Your task to perform on an android device: open app "Duolingo: language lessons" Image 0: 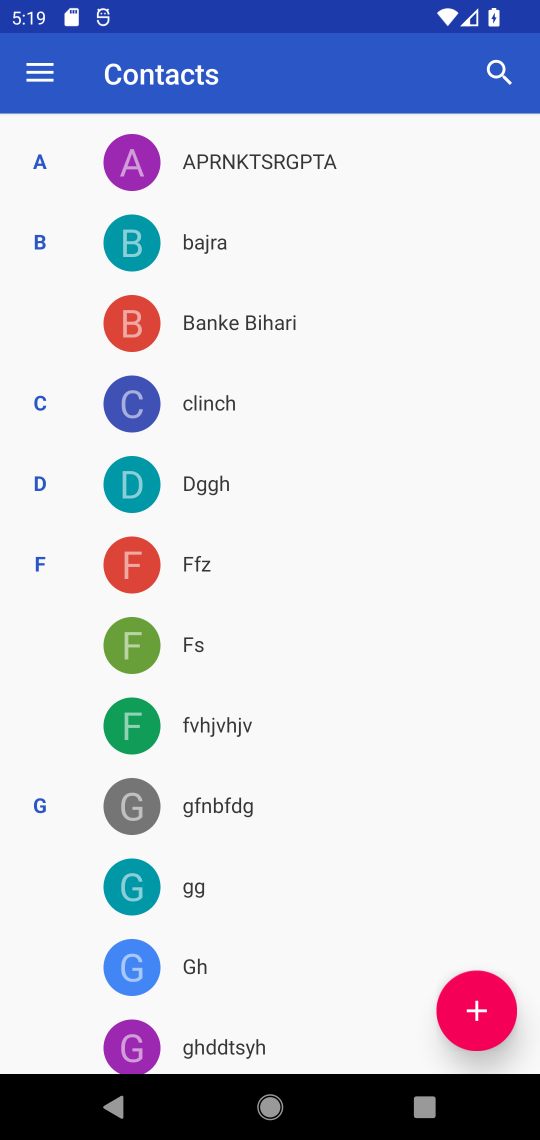
Step 0: press back button
Your task to perform on an android device: open app "Duolingo: language lessons" Image 1: 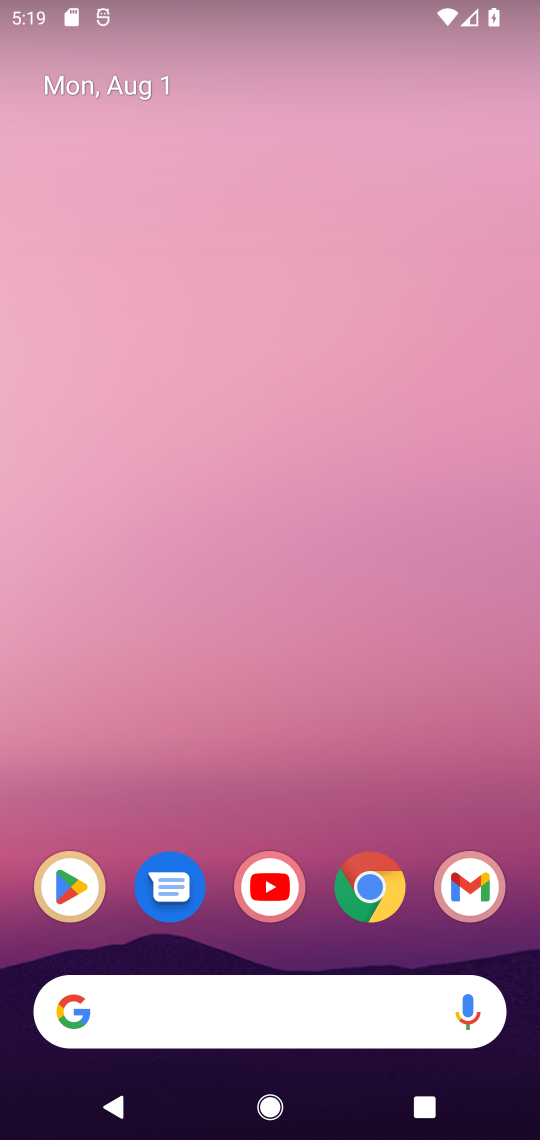
Step 1: click (84, 876)
Your task to perform on an android device: open app "Duolingo: language lessons" Image 2: 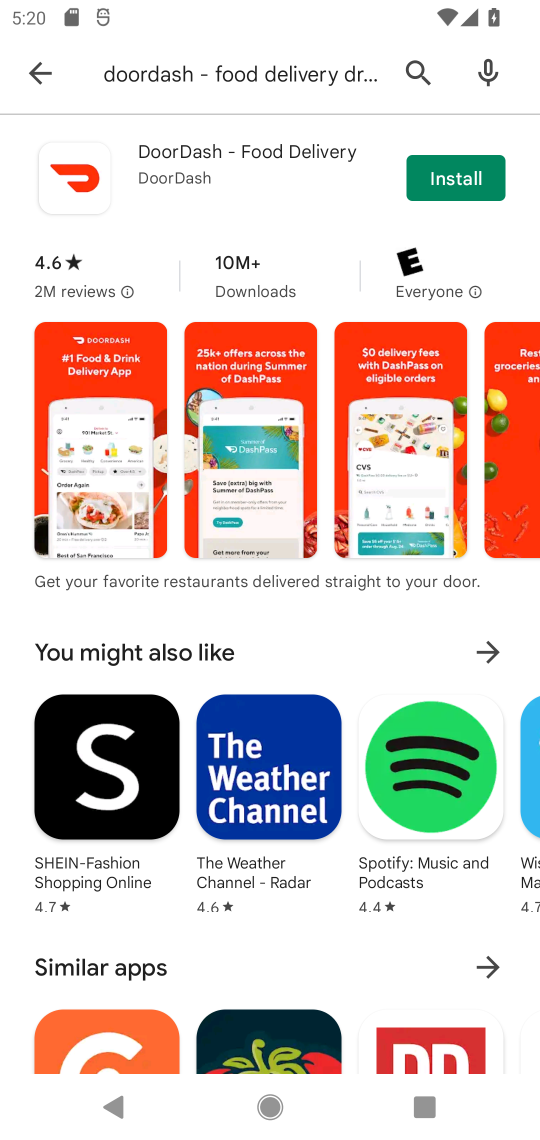
Step 2: task complete